Your task to perform on an android device: change the upload size in google photos Image 0: 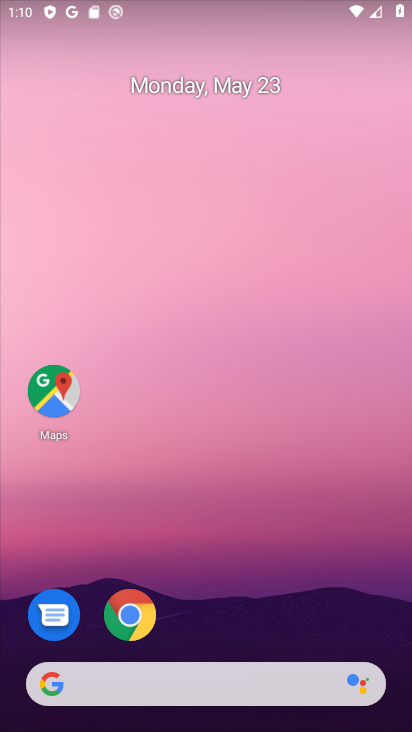
Step 0: drag from (193, 645) to (155, 108)
Your task to perform on an android device: change the upload size in google photos Image 1: 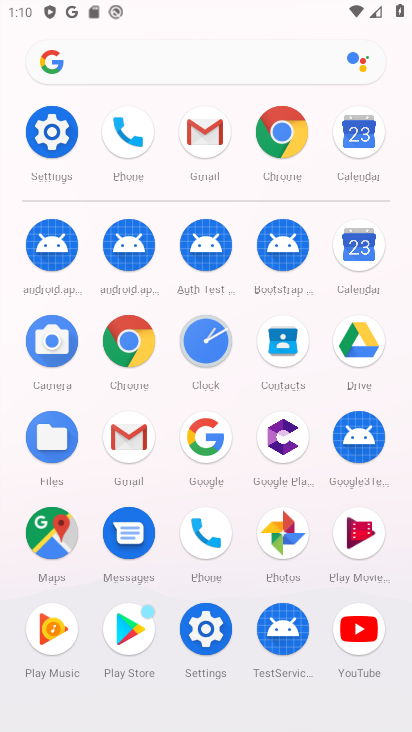
Step 1: click (283, 541)
Your task to perform on an android device: change the upload size in google photos Image 2: 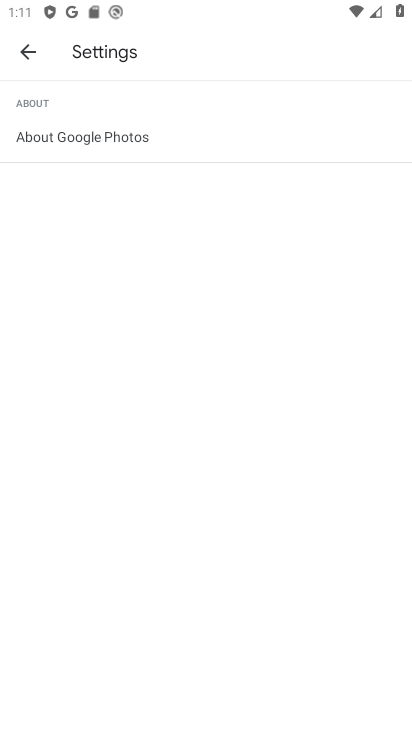
Step 2: click (28, 51)
Your task to perform on an android device: change the upload size in google photos Image 3: 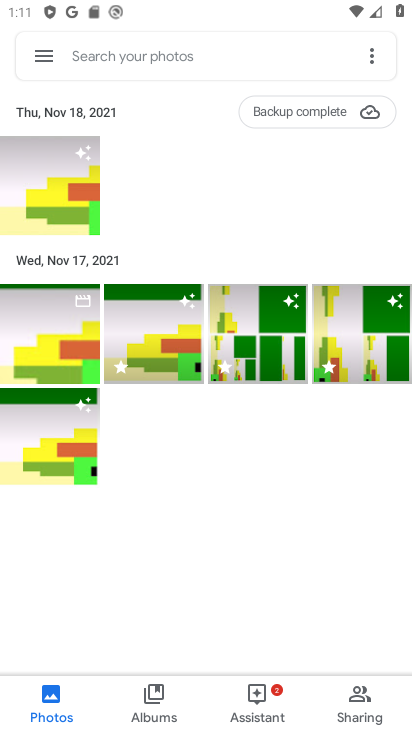
Step 3: click (38, 54)
Your task to perform on an android device: change the upload size in google photos Image 4: 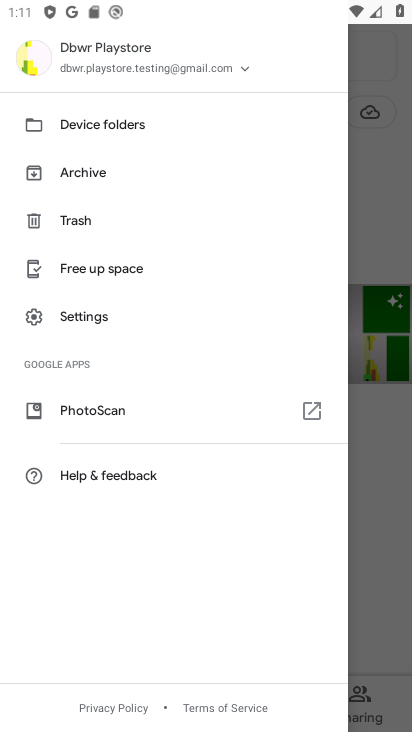
Step 4: click (82, 312)
Your task to perform on an android device: change the upload size in google photos Image 5: 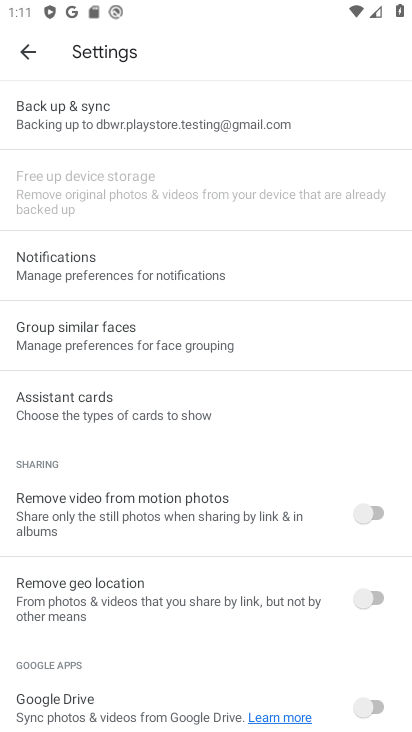
Step 5: click (88, 111)
Your task to perform on an android device: change the upload size in google photos Image 6: 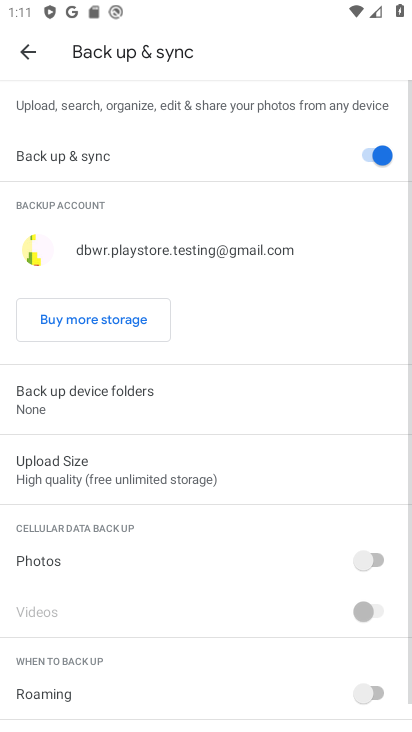
Step 6: click (98, 488)
Your task to perform on an android device: change the upload size in google photos Image 7: 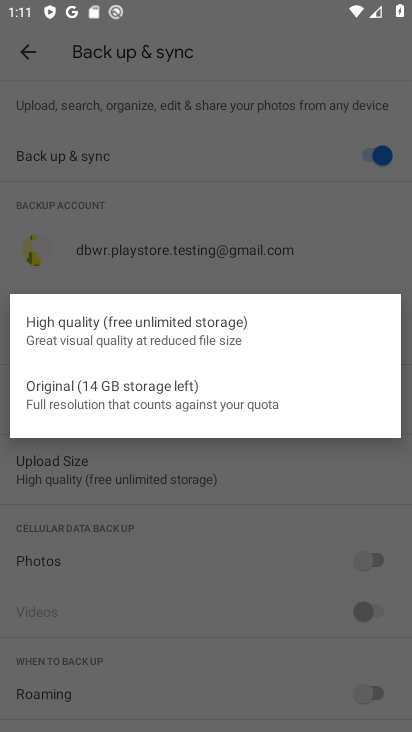
Step 7: click (83, 388)
Your task to perform on an android device: change the upload size in google photos Image 8: 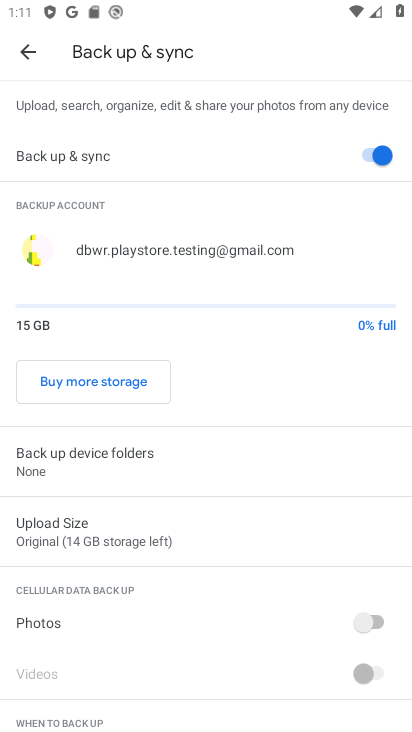
Step 8: task complete